Your task to perform on an android device: Clear the cart on bestbuy. Search for "acer predator" on bestbuy, select the first entry, and add it to the cart. Image 0: 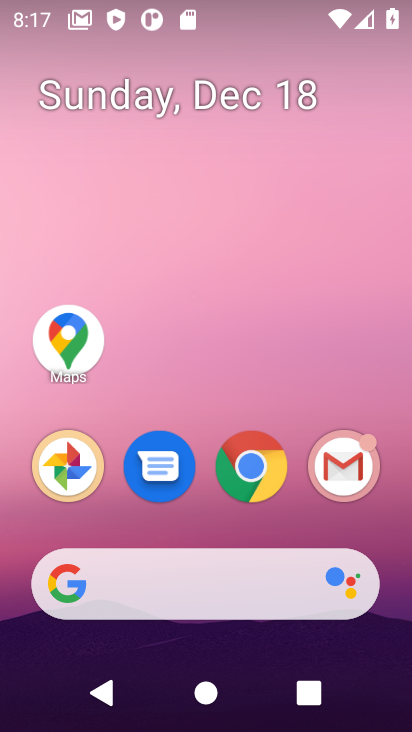
Step 0: click (237, 494)
Your task to perform on an android device: Clear the cart on bestbuy. Search for "acer predator" on bestbuy, select the first entry, and add it to the cart. Image 1: 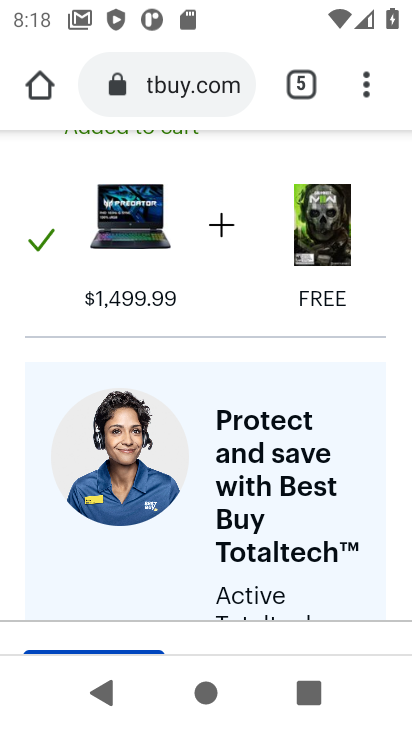
Step 1: drag from (327, 190) to (341, 580)
Your task to perform on an android device: Clear the cart on bestbuy. Search for "acer predator" on bestbuy, select the first entry, and add it to the cart. Image 2: 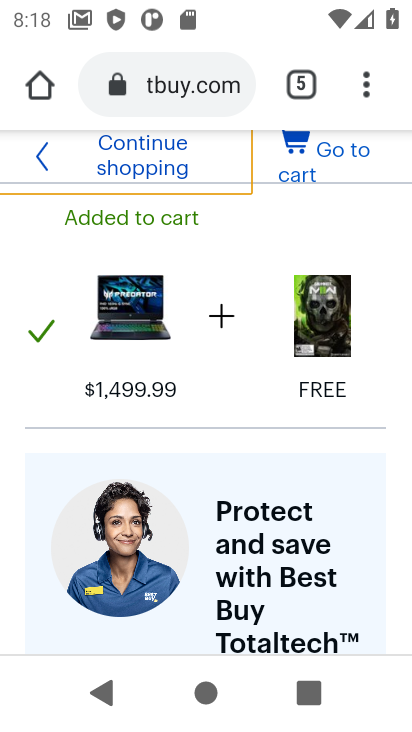
Step 2: click (306, 163)
Your task to perform on an android device: Clear the cart on bestbuy. Search for "acer predator" on bestbuy, select the first entry, and add it to the cart. Image 3: 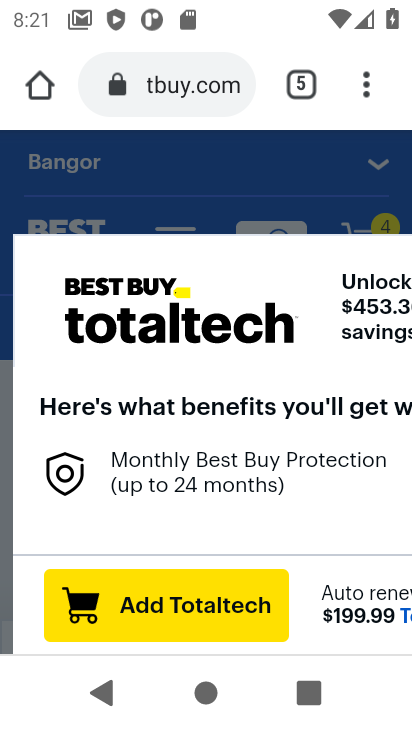
Step 3: task complete